Your task to perform on an android device: View the shopping cart on amazon. Image 0: 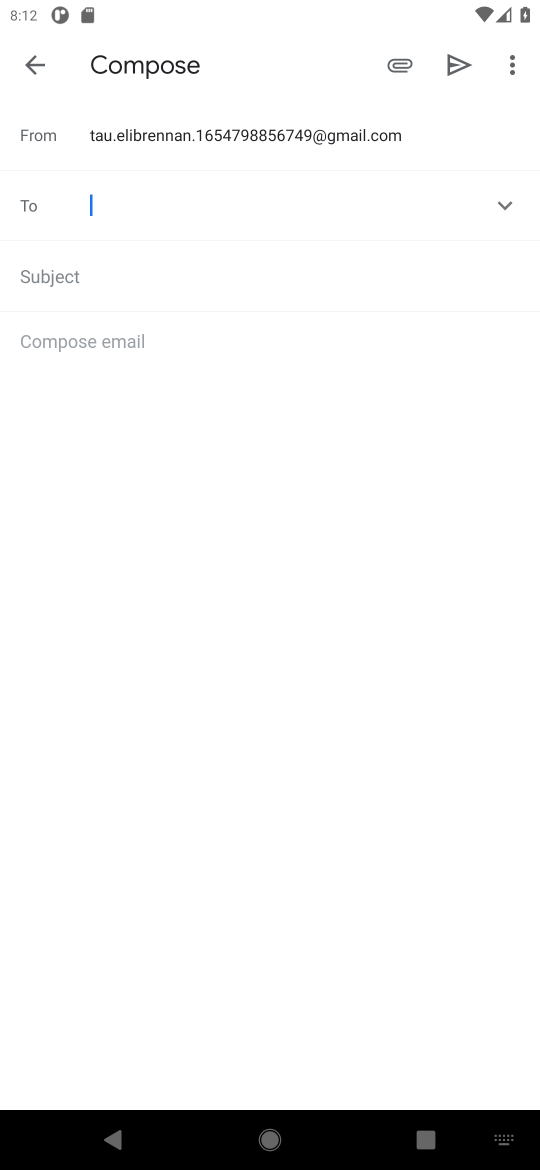
Step 0: press home button
Your task to perform on an android device: View the shopping cart on amazon. Image 1: 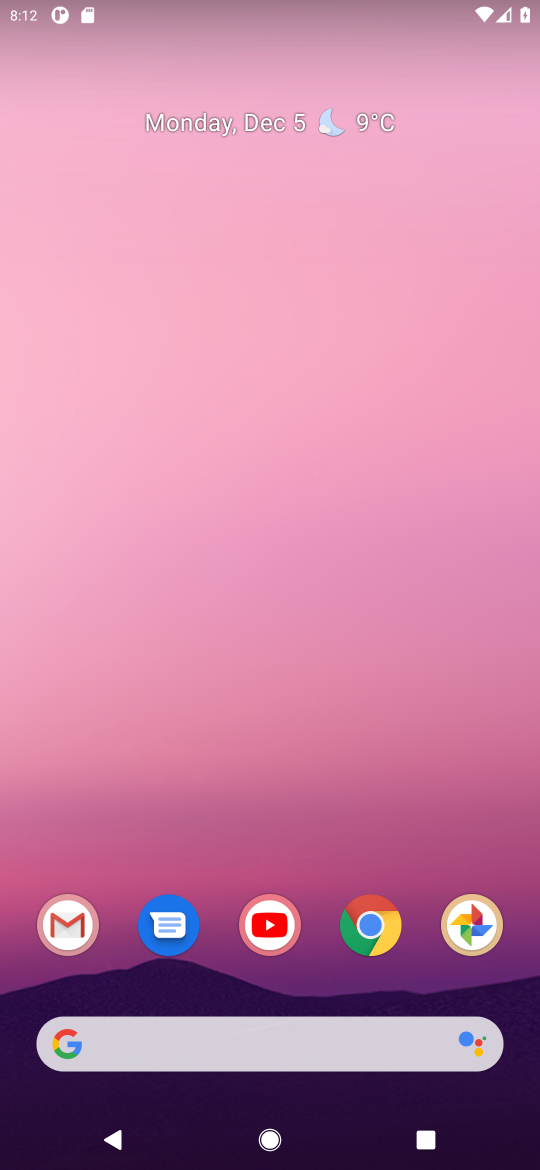
Step 1: click (373, 931)
Your task to perform on an android device: View the shopping cart on amazon. Image 2: 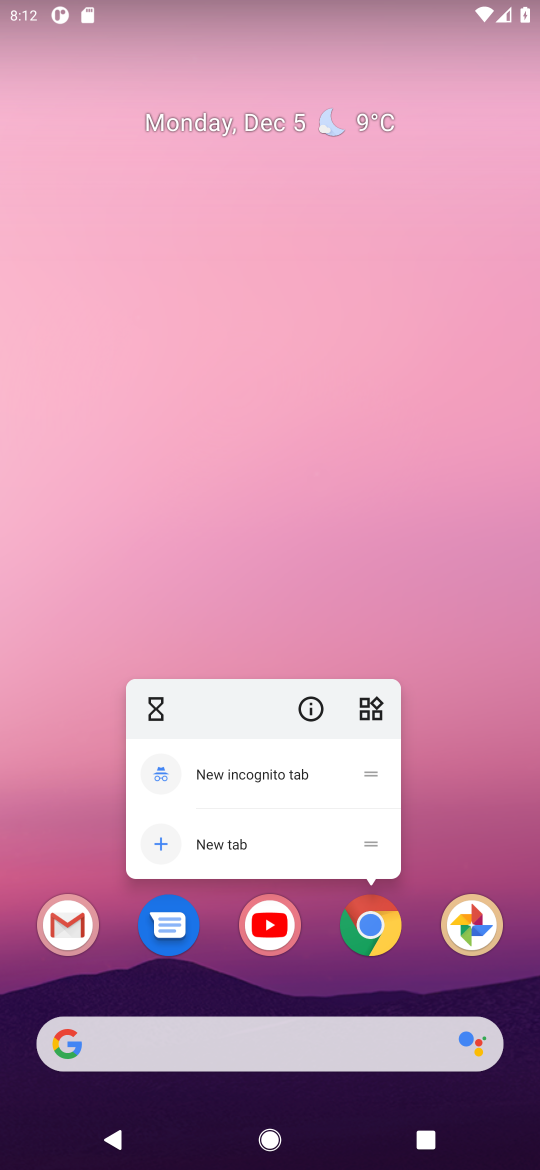
Step 2: click (373, 931)
Your task to perform on an android device: View the shopping cart on amazon. Image 3: 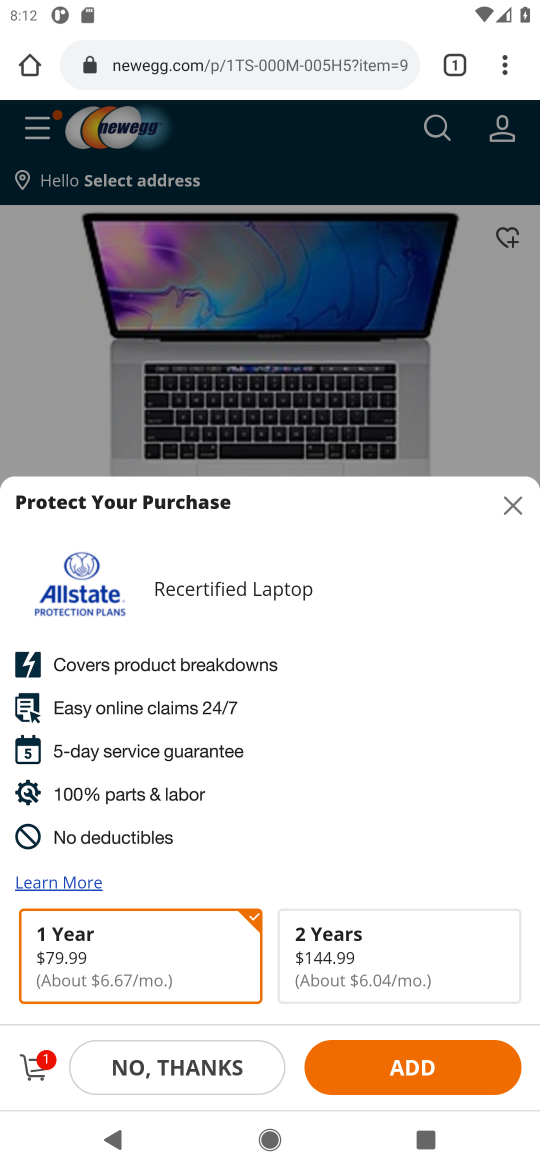
Step 3: click (231, 69)
Your task to perform on an android device: View the shopping cart on amazon. Image 4: 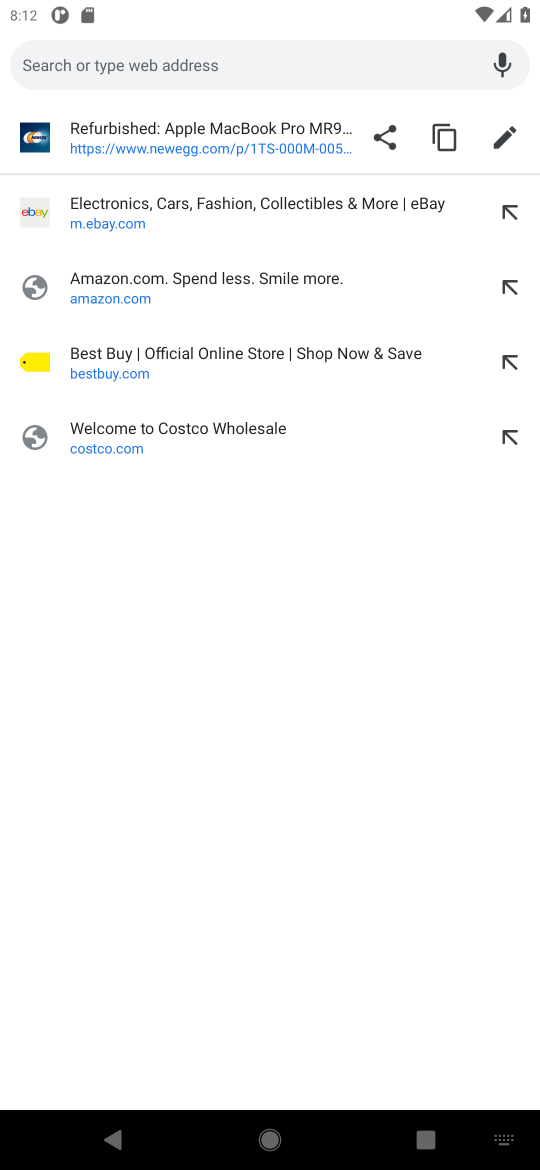
Step 4: click (103, 292)
Your task to perform on an android device: View the shopping cart on amazon. Image 5: 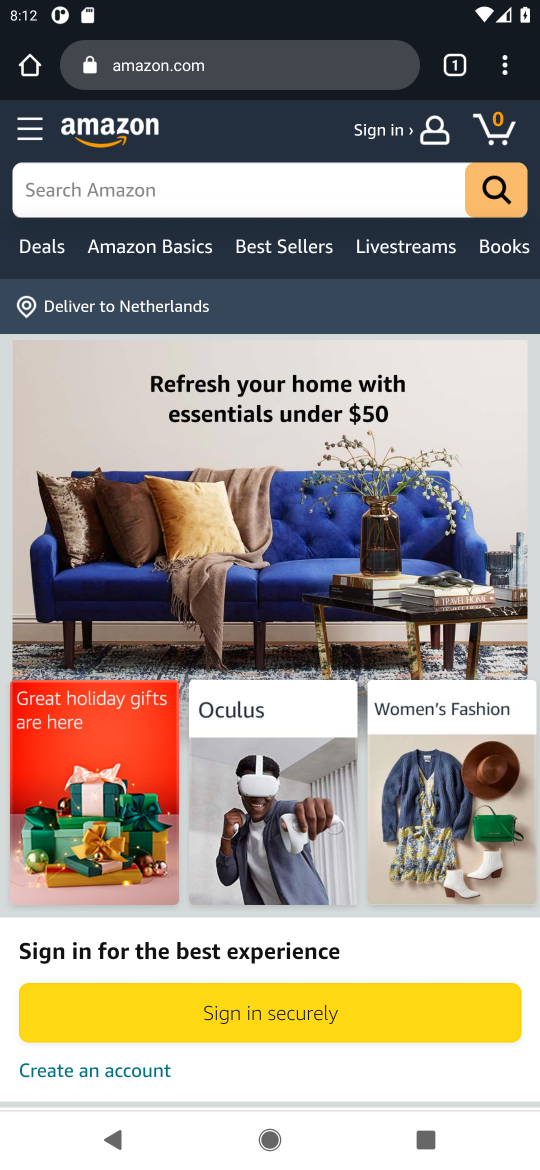
Step 5: click (488, 133)
Your task to perform on an android device: View the shopping cart on amazon. Image 6: 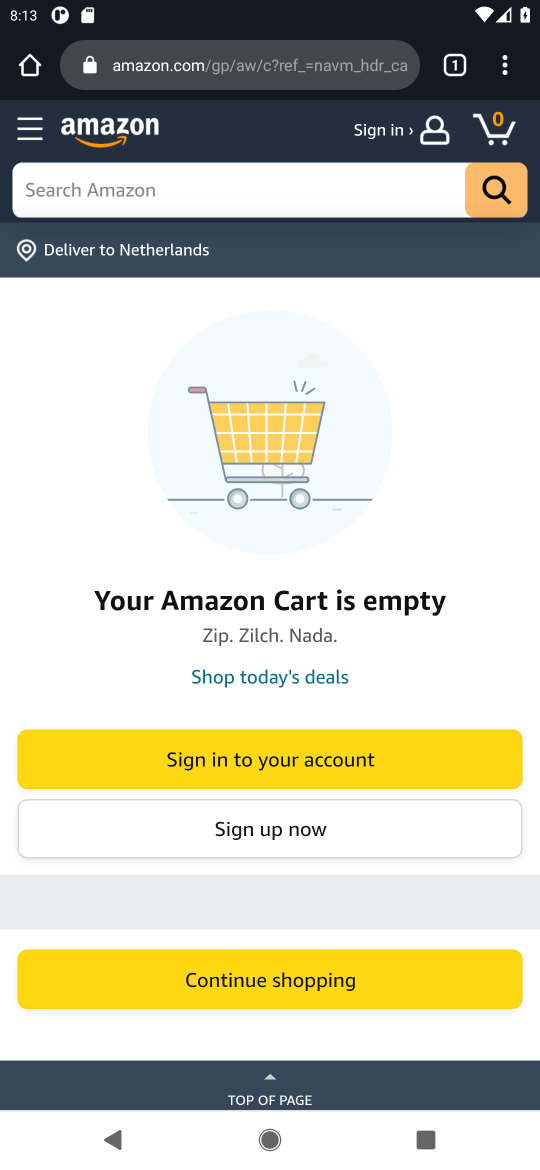
Step 6: task complete